Your task to perform on an android device: Open calendar and show me the first week of next month Image 0: 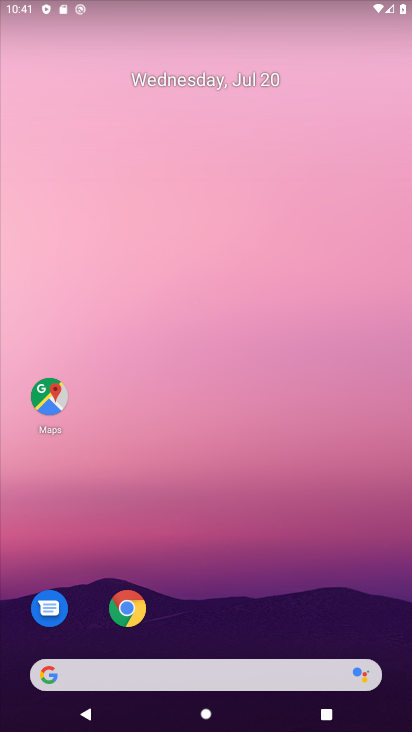
Step 0: drag from (246, 374) to (167, 60)
Your task to perform on an android device: Open calendar and show me the first week of next month Image 1: 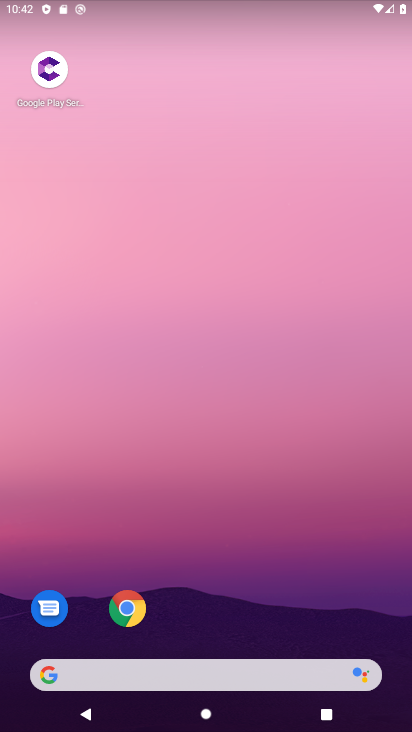
Step 1: drag from (375, 636) to (169, 38)
Your task to perform on an android device: Open calendar and show me the first week of next month Image 2: 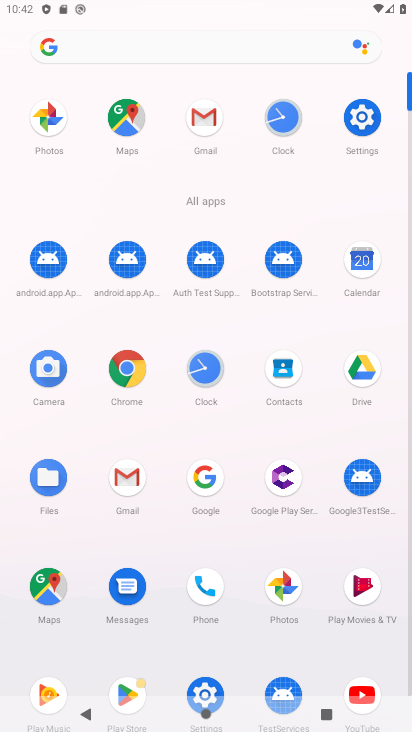
Step 2: click (363, 253)
Your task to perform on an android device: Open calendar and show me the first week of next month Image 3: 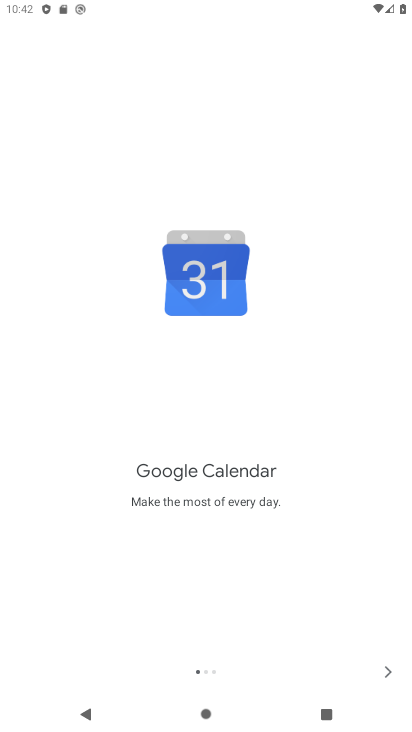
Step 3: click (381, 670)
Your task to perform on an android device: Open calendar and show me the first week of next month Image 4: 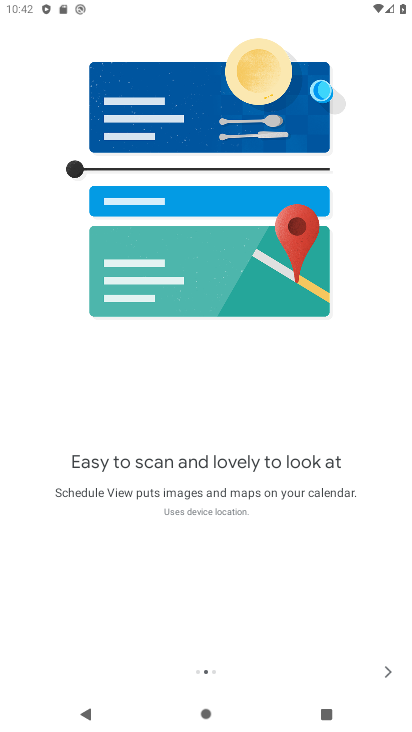
Step 4: click (385, 671)
Your task to perform on an android device: Open calendar and show me the first week of next month Image 5: 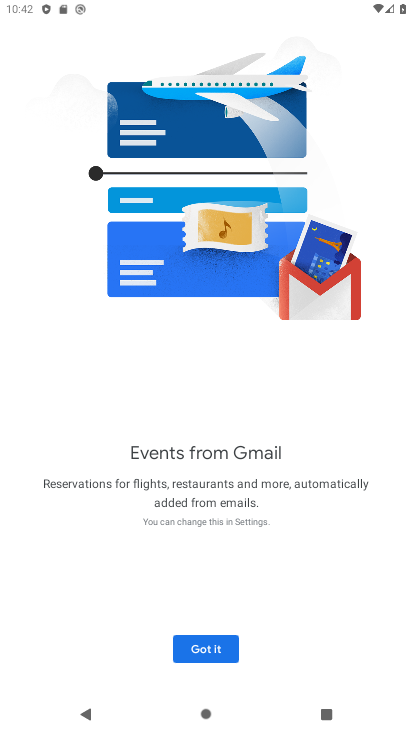
Step 5: click (201, 653)
Your task to perform on an android device: Open calendar and show me the first week of next month Image 6: 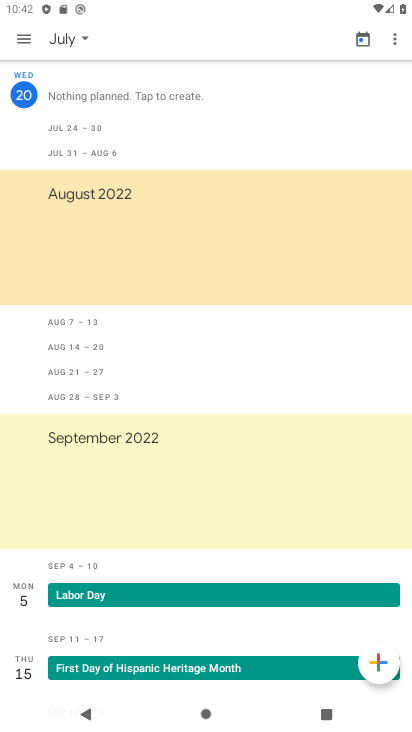
Step 6: click (65, 42)
Your task to perform on an android device: Open calendar and show me the first week of next month Image 7: 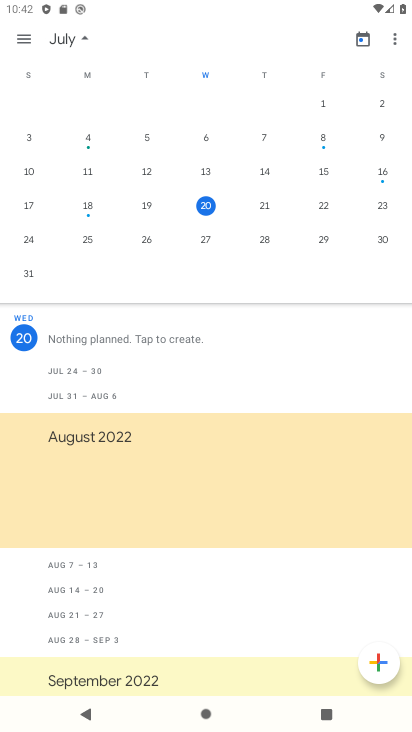
Step 7: drag from (365, 174) to (1, 186)
Your task to perform on an android device: Open calendar and show me the first week of next month Image 8: 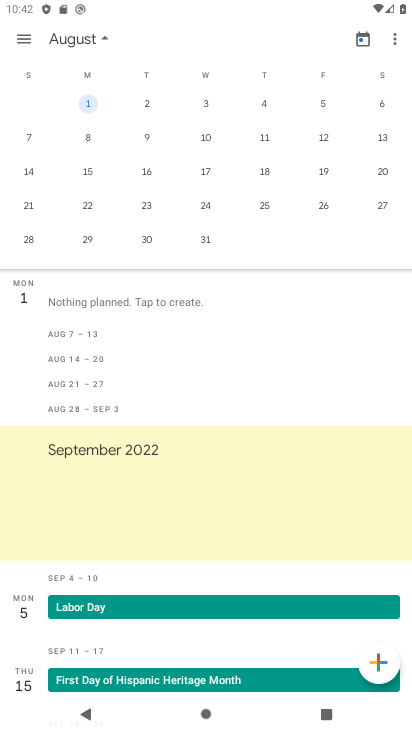
Step 8: click (26, 132)
Your task to perform on an android device: Open calendar and show me the first week of next month Image 9: 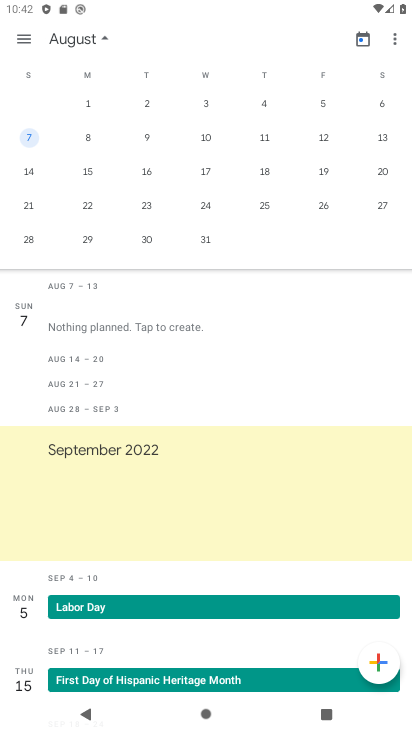
Step 9: task complete